Your task to perform on an android device: Open the web browser Image 0: 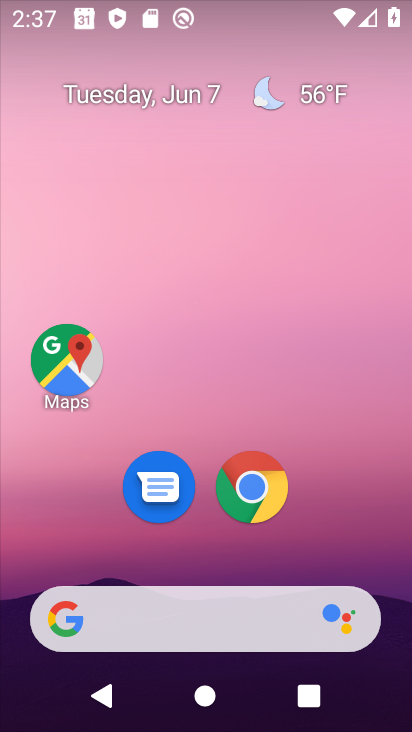
Step 0: click (237, 621)
Your task to perform on an android device: Open the web browser Image 1: 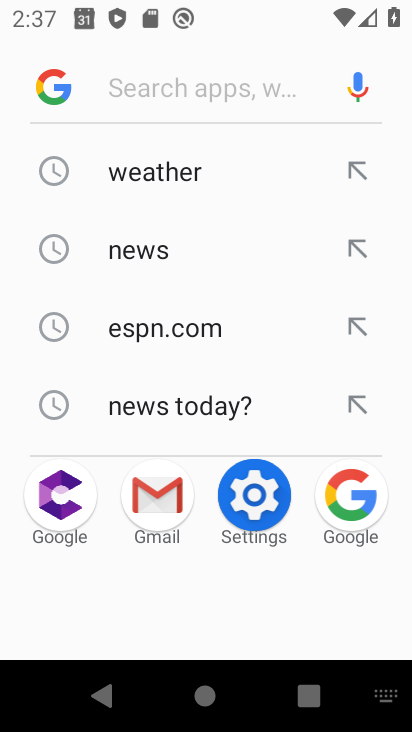
Step 1: task complete